Your task to perform on an android device: Search for Mexican restaurants on Maps Image 0: 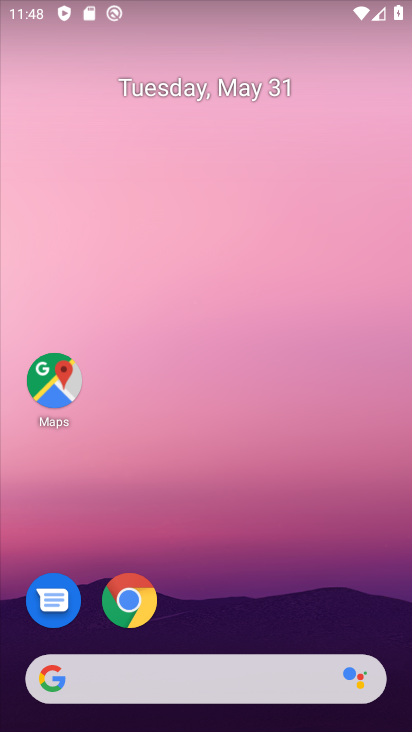
Step 0: click (77, 370)
Your task to perform on an android device: Search for Mexican restaurants on Maps Image 1: 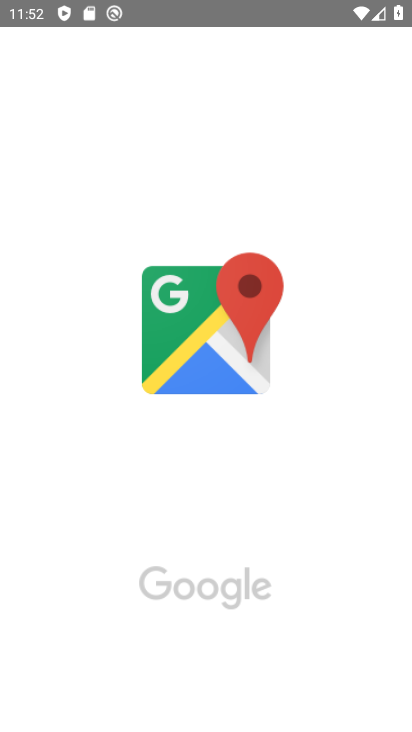
Step 1: click (255, 348)
Your task to perform on an android device: Search for Mexican restaurants on Maps Image 2: 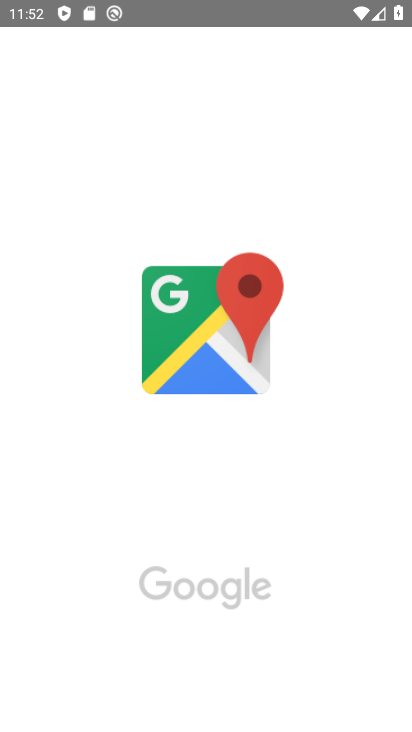
Step 2: click (255, 348)
Your task to perform on an android device: Search for Mexican restaurants on Maps Image 3: 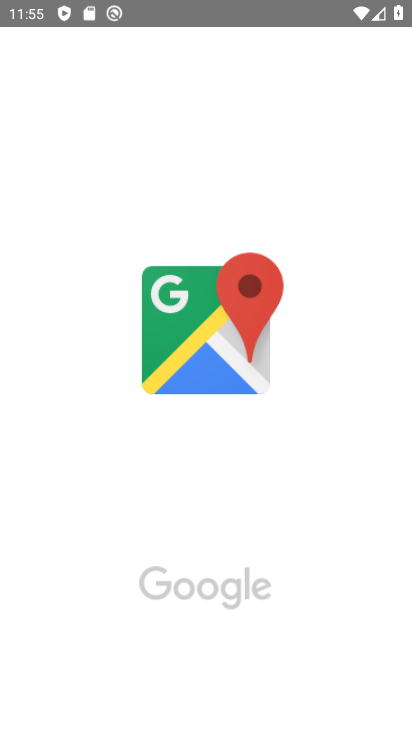
Step 3: task complete